Your task to perform on an android device: turn off priority inbox in the gmail app Image 0: 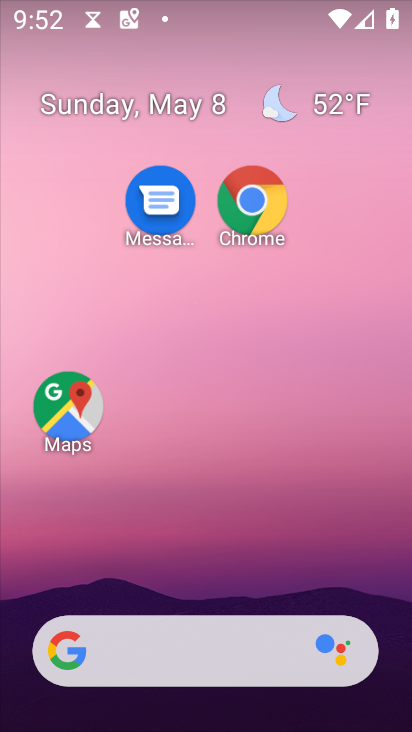
Step 0: drag from (214, 613) to (341, 13)
Your task to perform on an android device: turn off priority inbox in the gmail app Image 1: 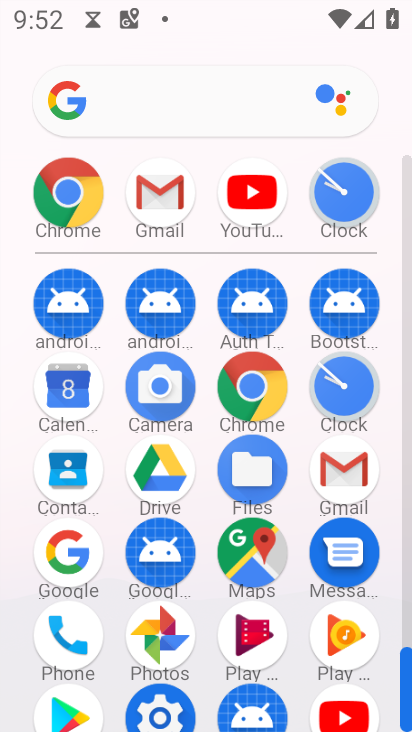
Step 1: click (360, 443)
Your task to perform on an android device: turn off priority inbox in the gmail app Image 2: 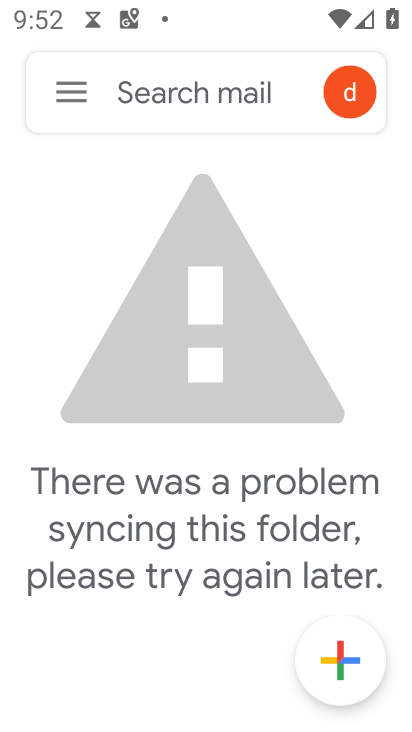
Step 2: click (76, 105)
Your task to perform on an android device: turn off priority inbox in the gmail app Image 3: 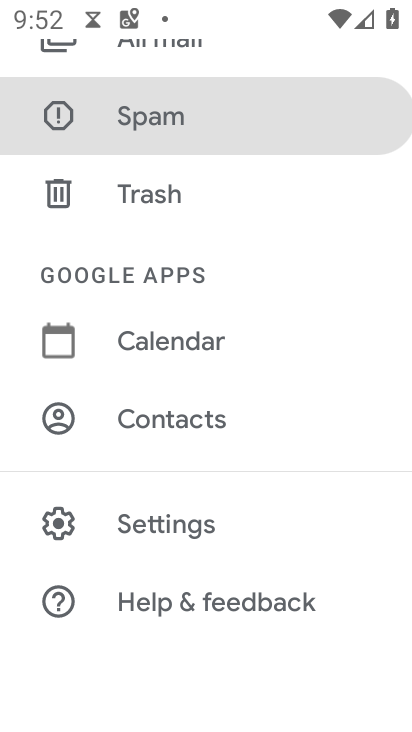
Step 3: click (131, 521)
Your task to perform on an android device: turn off priority inbox in the gmail app Image 4: 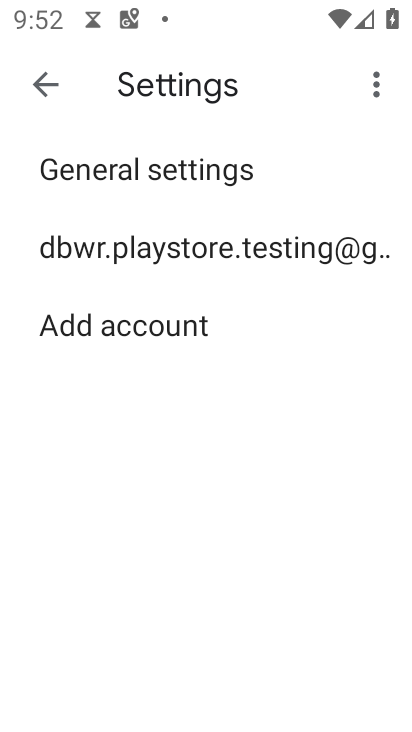
Step 4: click (119, 262)
Your task to perform on an android device: turn off priority inbox in the gmail app Image 5: 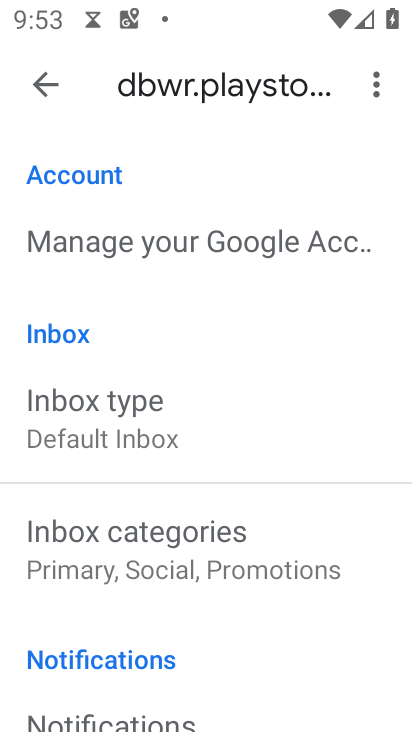
Step 5: click (89, 437)
Your task to perform on an android device: turn off priority inbox in the gmail app Image 6: 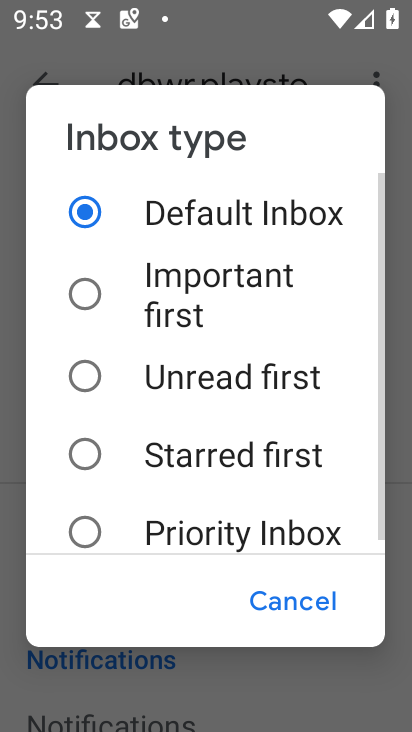
Step 6: task complete